Your task to perform on an android device: Open my contact list Image 0: 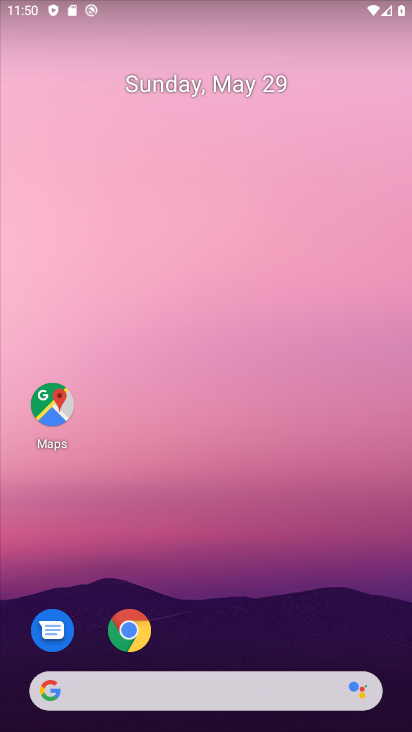
Step 0: drag from (294, 662) to (261, 195)
Your task to perform on an android device: Open my contact list Image 1: 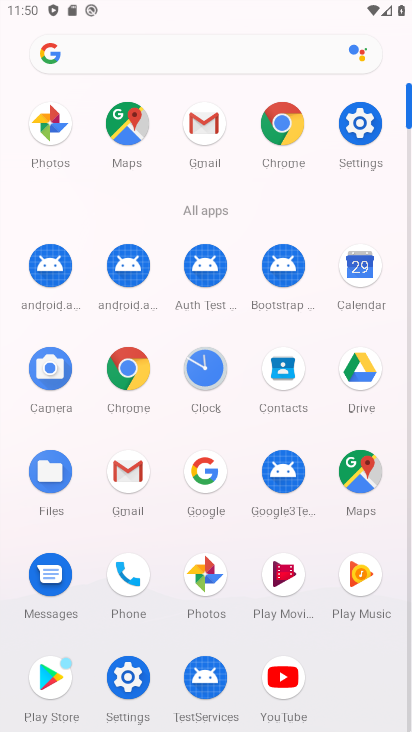
Step 1: click (275, 373)
Your task to perform on an android device: Open my contact list Image 2: 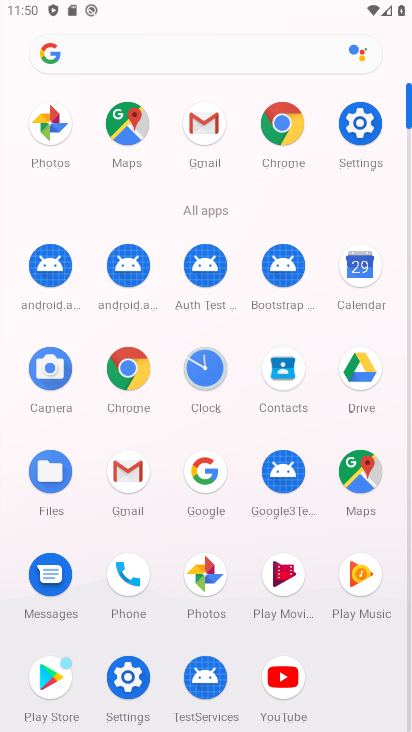
Step 2: click (275, 373)
Your task to perform on an android device: Open my contact list Image 3: 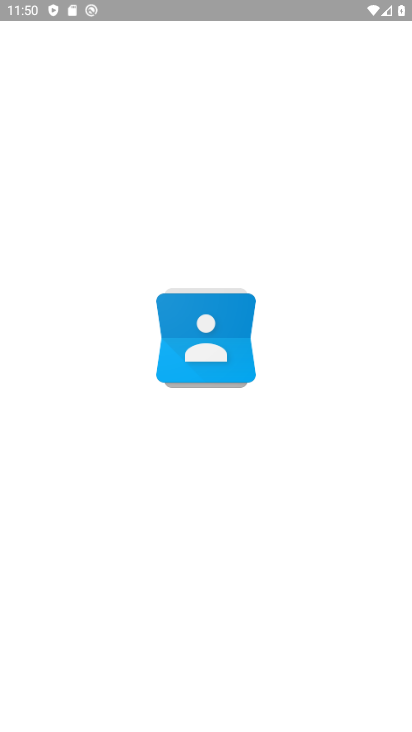
Step 3: click (276, 372)
Your task to perform on an android device: Open my contact list Image 4: 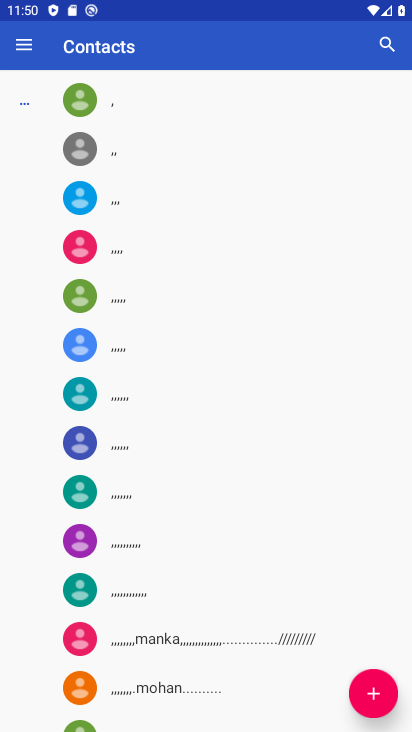
Step 4: click (374, 699)
Your task to perform on an android device: Open my contact list Image 5: 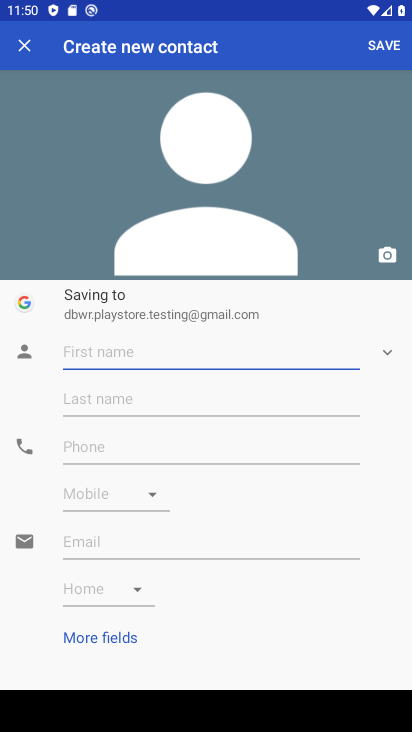
Step 5: type "KJKJDKJDS"
Your task to perform on an android device: Open my contact list Image 6: 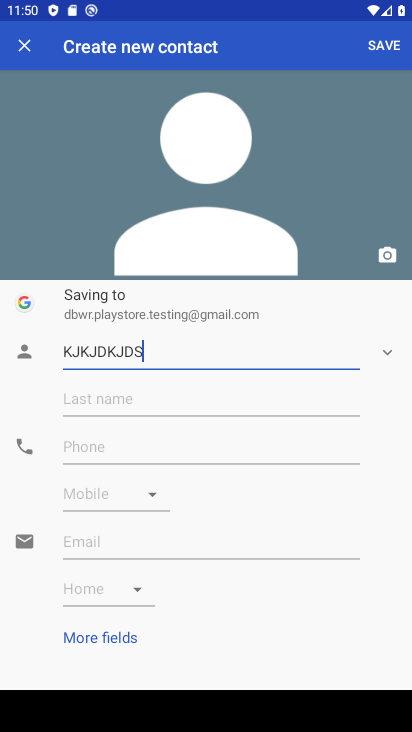
Step 6: click (73, 449)
Your task to perform on an android device: Open my contact list Image 7: 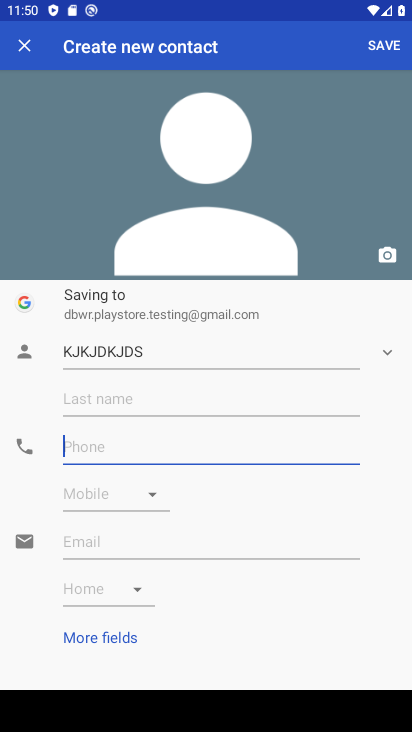
Step 7: click (73, 449)
Your task to perform on an android device: Open my contact list Image 8: 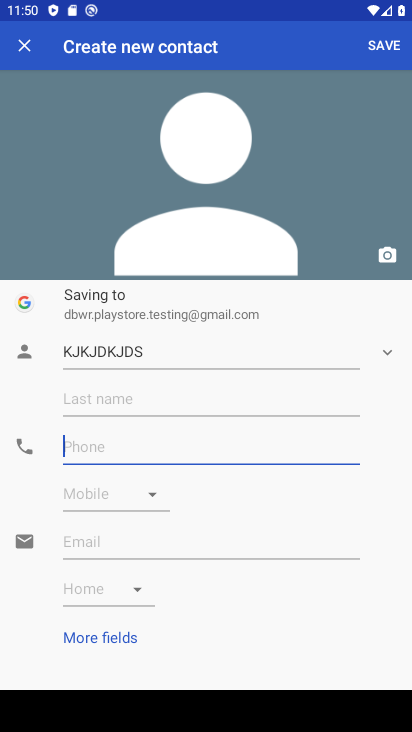
Step 8: type "98798789789823987"
Your task to perform on an android device: Open my contact list Image 9: 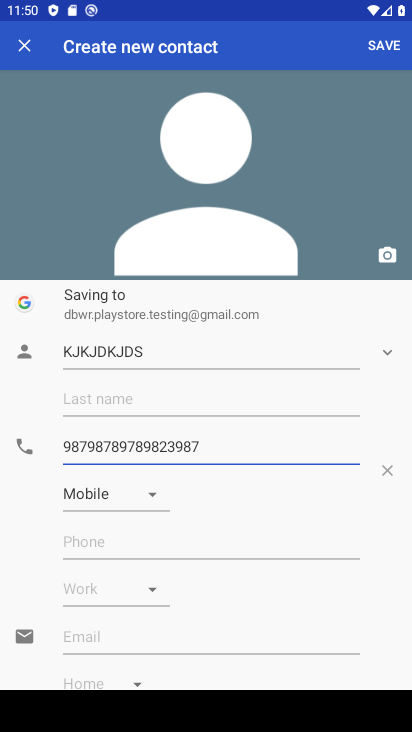
Step 9: click (381, 42)
Your task to perform on an android device: Open my contact list Image 10: 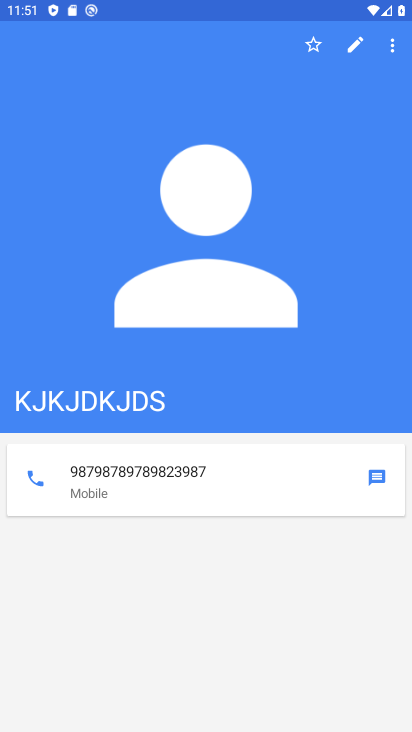
Step 10: task complete